Your task to perform on an android device: move a message to another label in the gmail app Image 0: 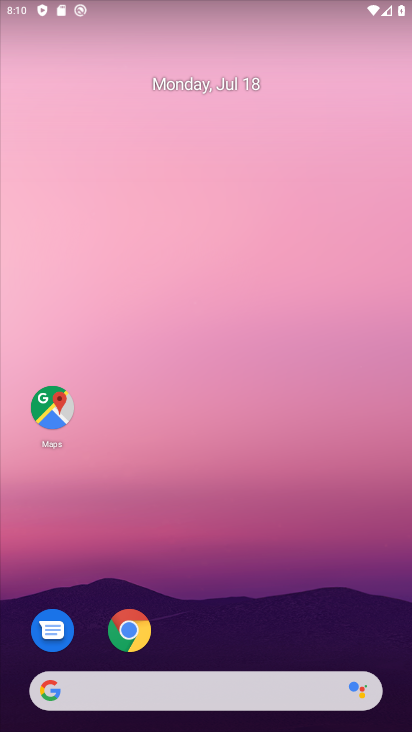
Step 0: drag from (233, 646) to (251, 183)
Your task to perform on an android device: move a message to another label in the gmail app Image 1: 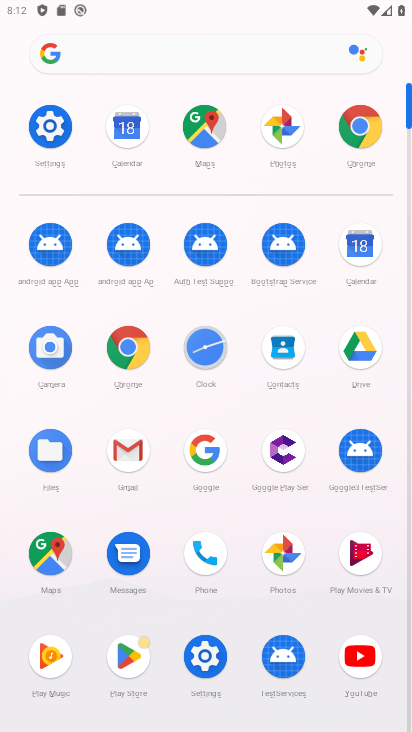
Step 1: click (142, 471)
Your task to perform on an android device: move a message to another label in the gmail app Image 2: 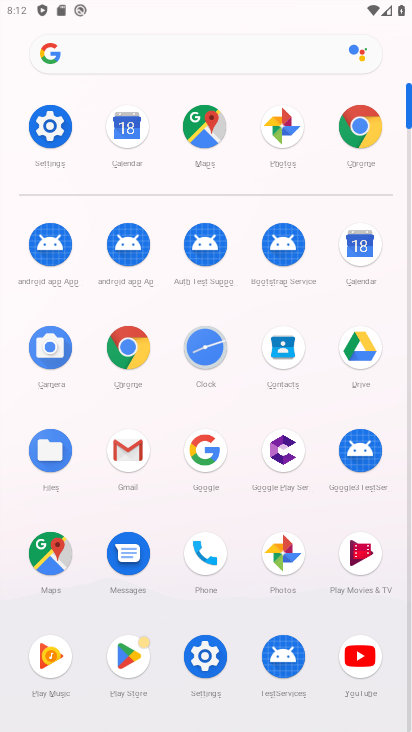
Step 2: click (125, 438)
Your task to perform on an android device: move a message to another label in the gmail app Image 3: 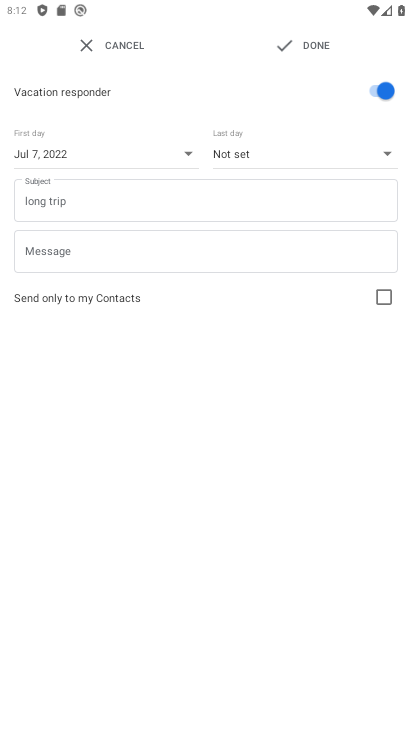
Step 3: click (82, 47)
Your task to perform on an android device: move a message to another label in the gmail app Image 4: 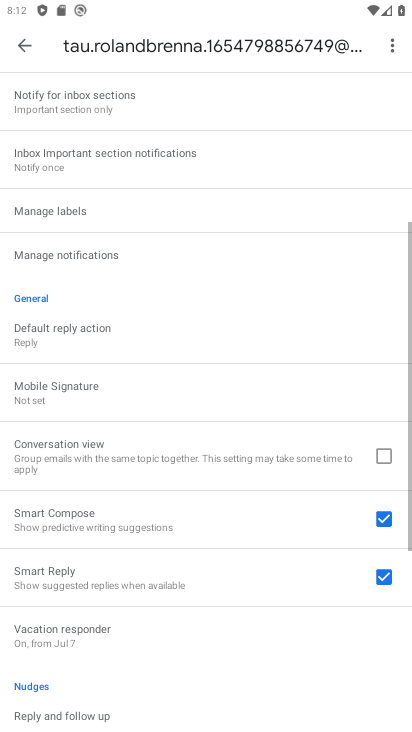
Step 4: click (18, 30)
Your task to perform on an android device: move a message to another label in the gmail app Image 5: 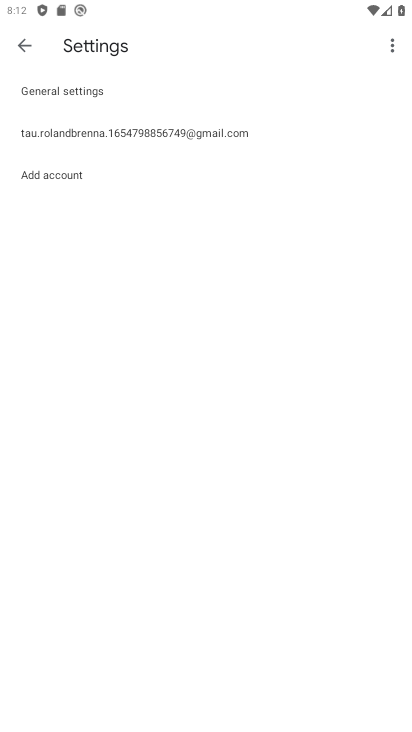
Step 5: click (22, 41)
Your task to perform on an android device: move a message to another label in the gmail app Image 6: 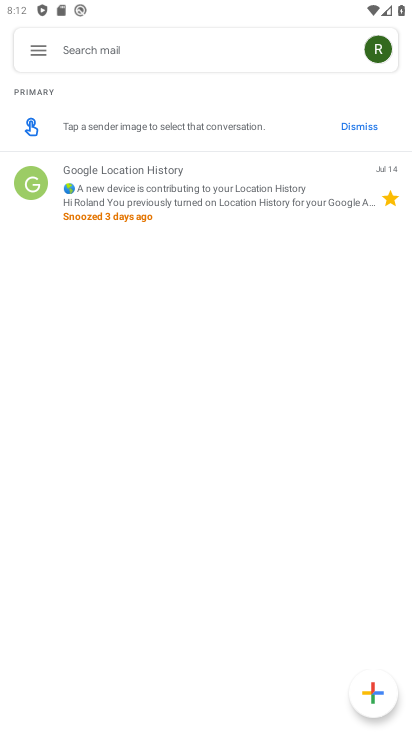
Step 6: click (125, 191)
Your task to perform on an android device: move a message to another label in the gmail app Image 7: 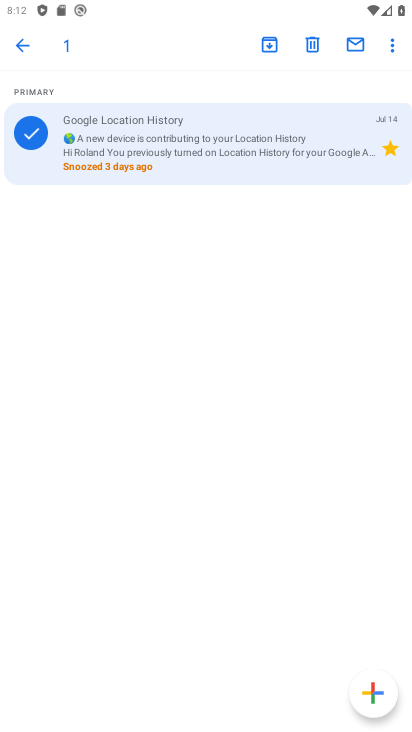
Step 7: click (388, 42)
Your task to perform on an android device: move a message to another label in the gmail app Image 8: 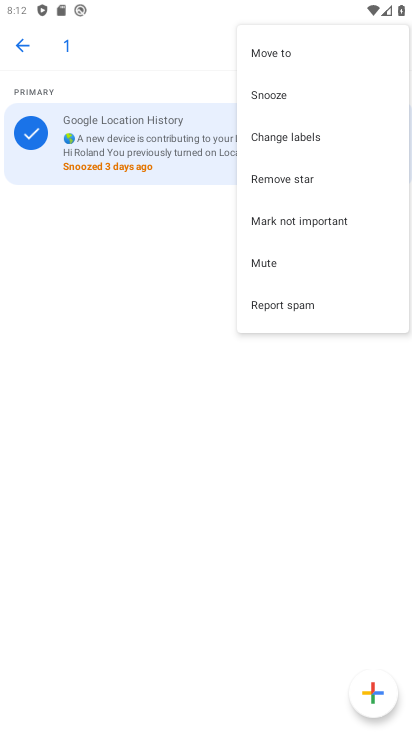
Step 8: click (293, 56)
Your task to perform on an android device: move a message to another label in the gmail app Image 9: 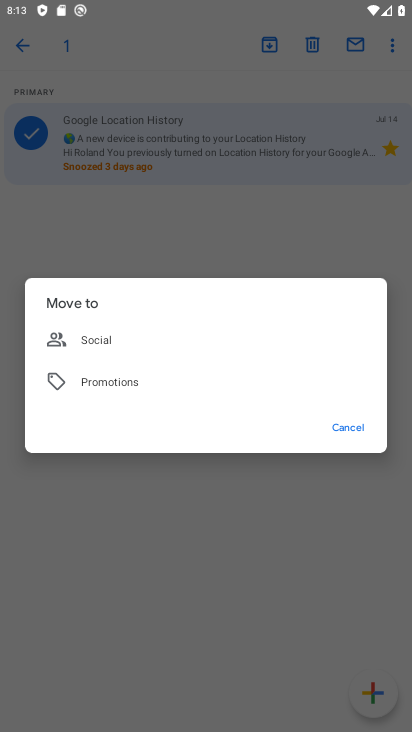
Step 9: click (74, 344)
Your task to perform on an android device: move a message to another label in the gmail app Image 10: 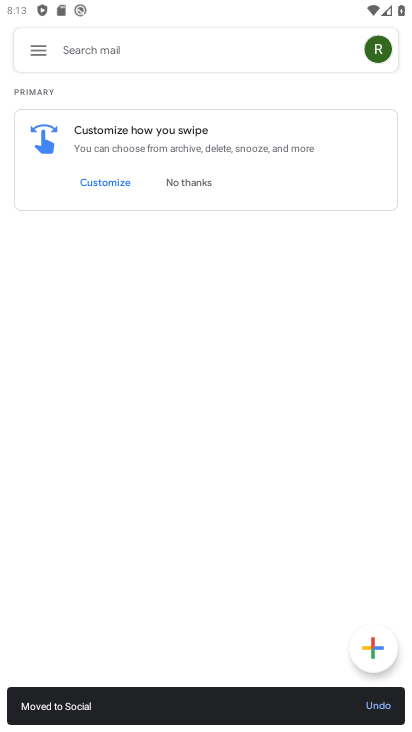
Step 10: task complete